Your task to perform on an android device: Go to battery settings Image 0: 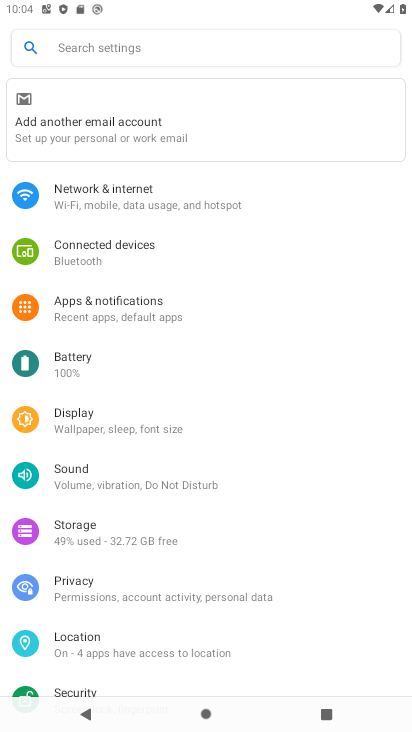
Step 0: click (108, 358)
Your task to perform on an android device: Go to battery settings Image 1: 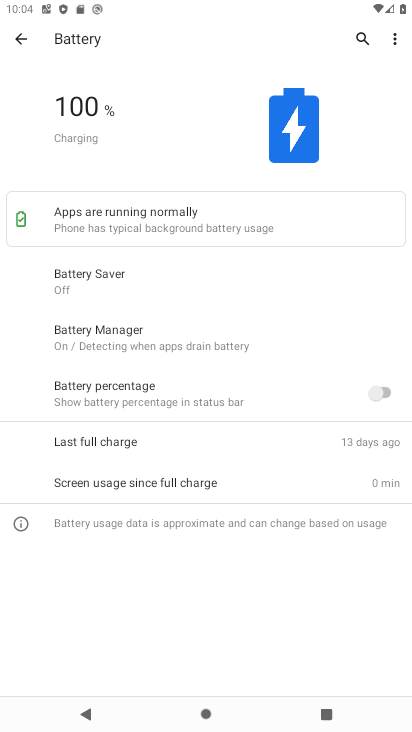
Step 1: task complete